Your task to perform on an android device: What's on Reddit today Image 0: 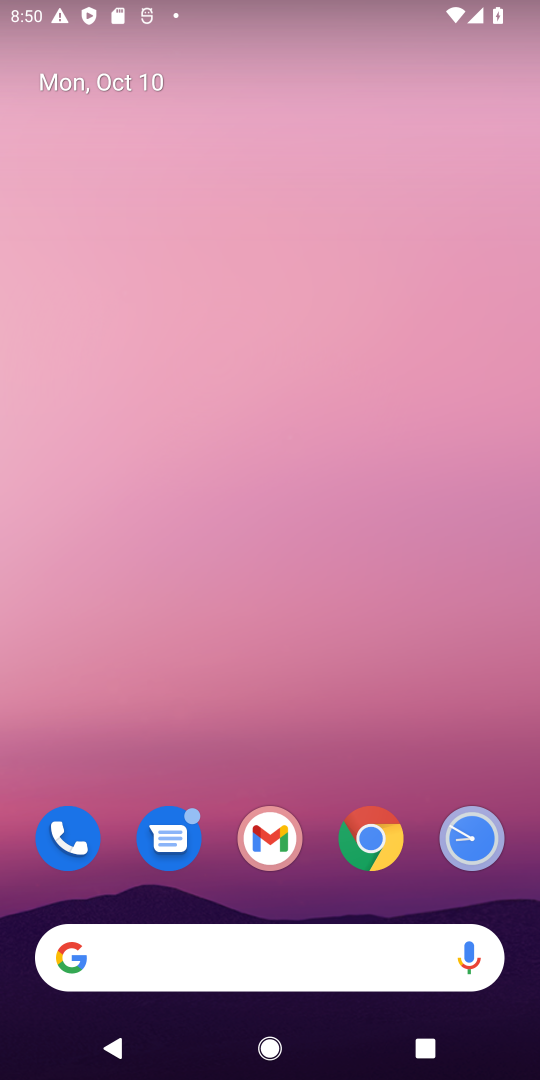
Step 0: drag from (261, 921) to (232, 7)
Your task to perform on an android device: What's on Reddit today Image 1: 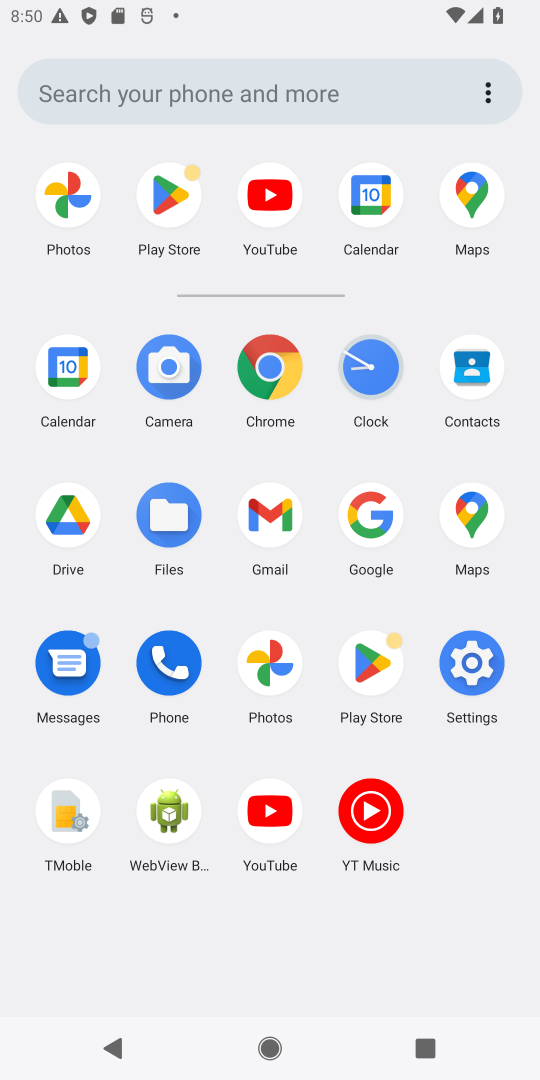
Step 1: click (270, 371)
Your task to perform on an android device: What's on Reddit today Image 2: 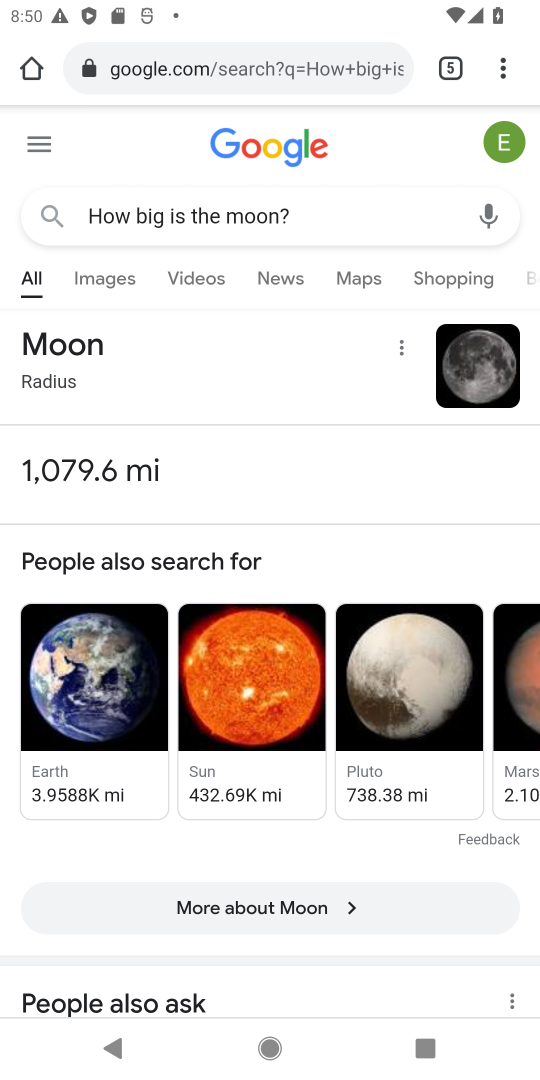
Step 2: click (343, 225)
Your task to perform on an android device: What's on Reddit today Image 3: 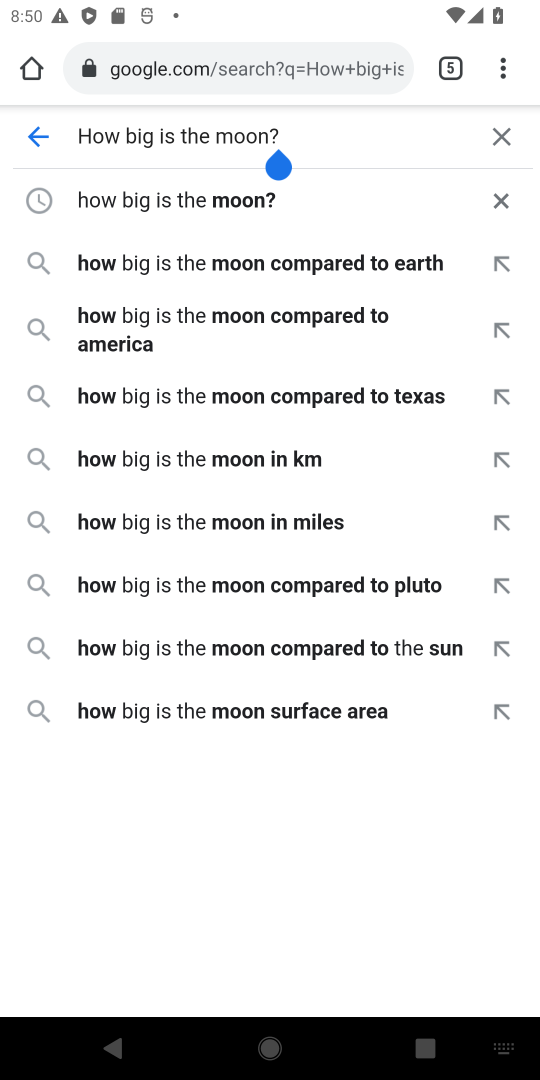
Step 3: click (494, 135)
Your task to perform on an android device: What's on Reddit today Image 4: 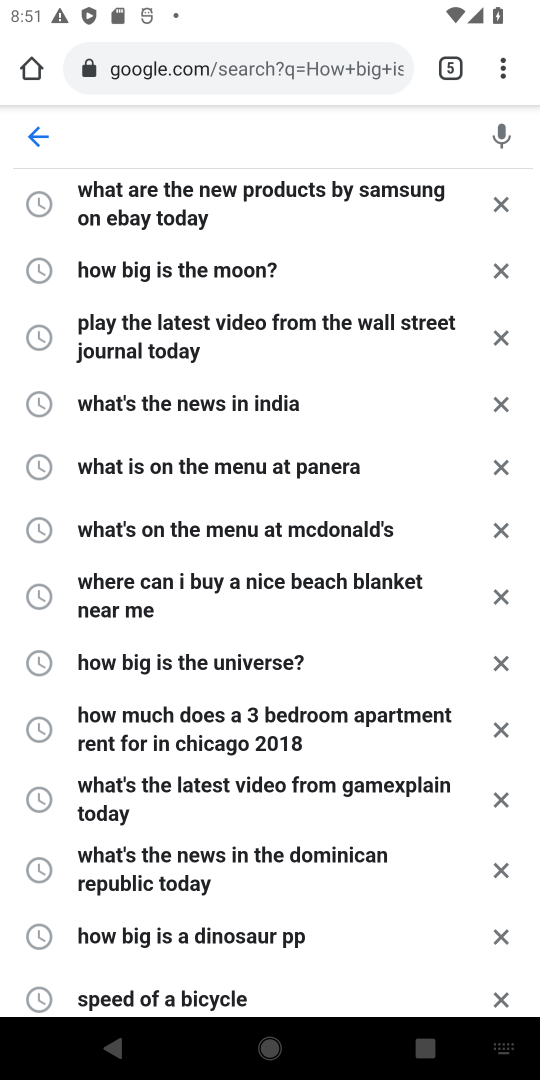
Step 4: type "What's on Reddit today"
Your task to perform on an android device: What's on Reddit today Image 5: 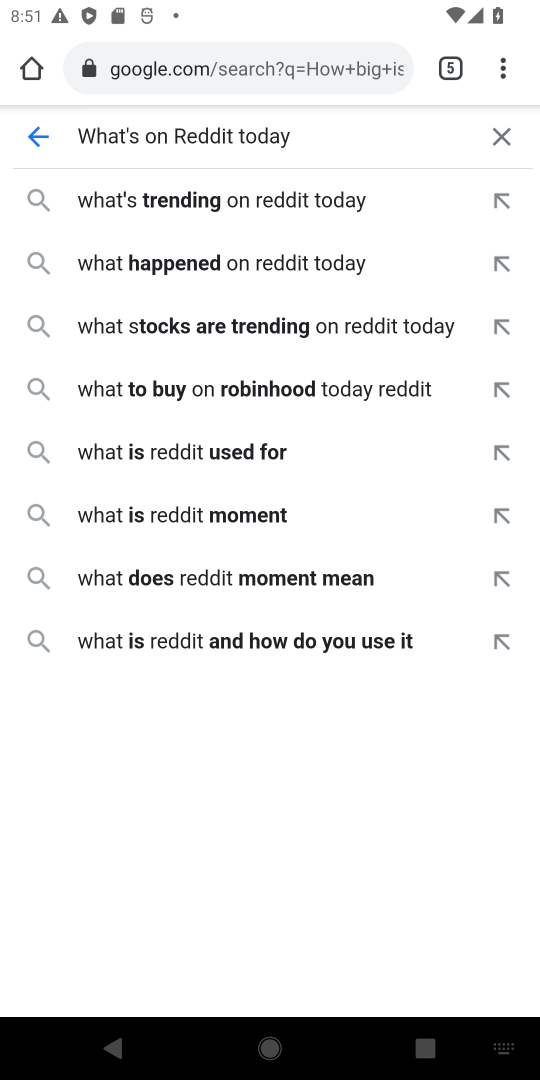
Step 5: click (210, 453)
Your task to perform on an android device: What's on Reddit today Image 6: 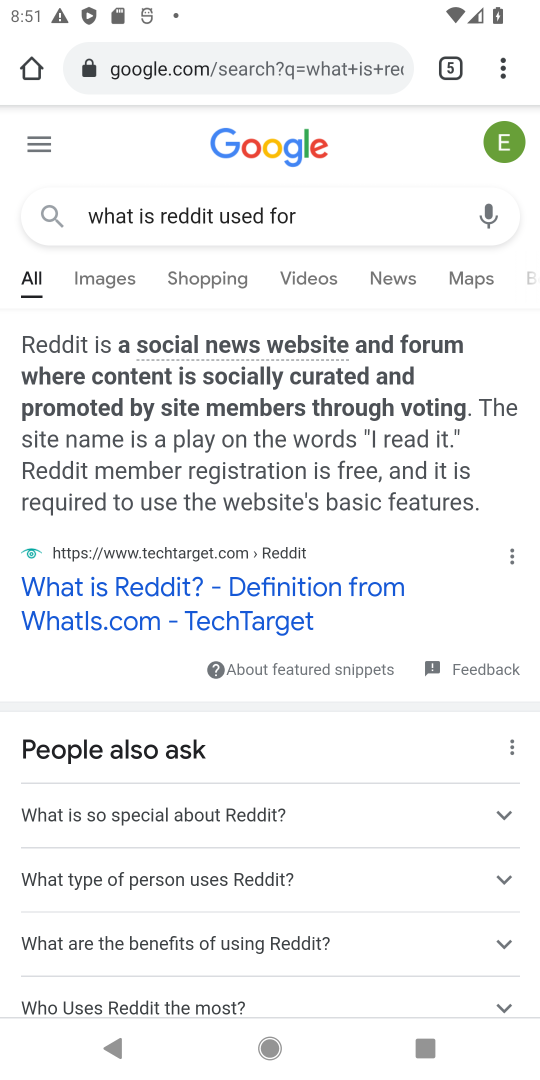
Step 6: task complete